Your task to perform on an android device: Search for 35 best books of all time Image 0: 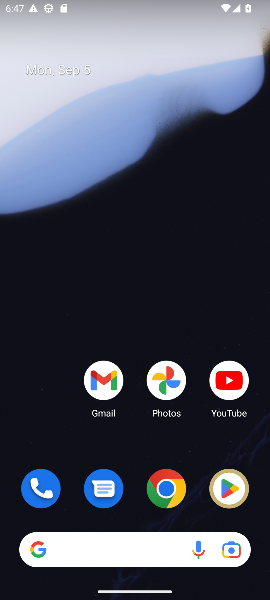
Step 0: click (171, 498)
Your task to perform on an android device: Search for 35 best books of all time Image 1: 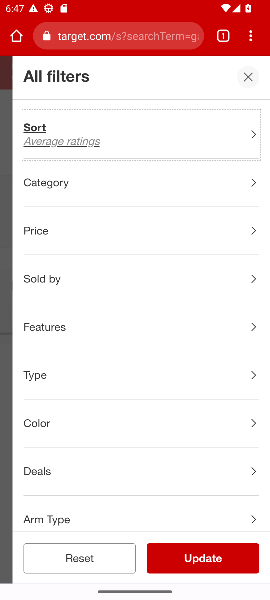
Step 1: click (151, 27)
Your task to perform on an android device: Search for 35 best books of all time Image 2: 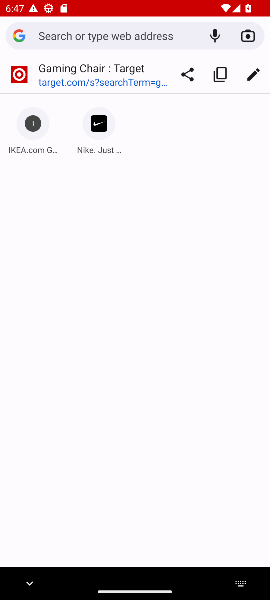
Step 2: type "35 best books of all time"
Your task to perform on an android device: Search for 35 best books of all time Image 3: 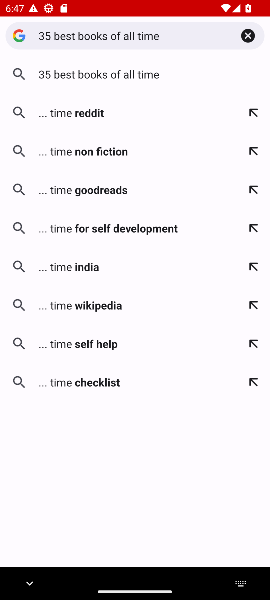
Step 3: press enter
Your task to perform on an android device: Search for 35 best books of all time Image 4: 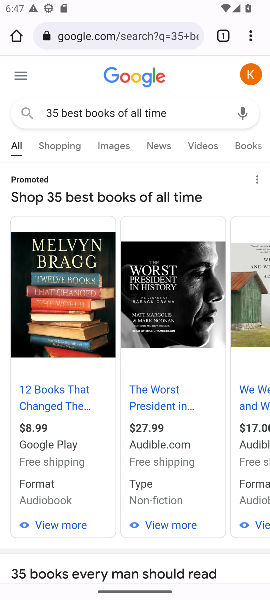
Step 4: click (178, 550)
Your task to perform on an android device: Search for 35 best books of all time Image 5: 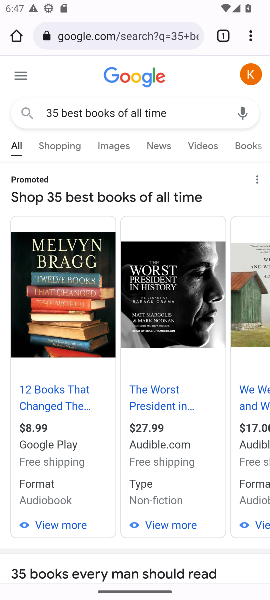
Step 5: click (157, 548)
Your task to perform on an android device: Search for 35 best books of all time Image 6: 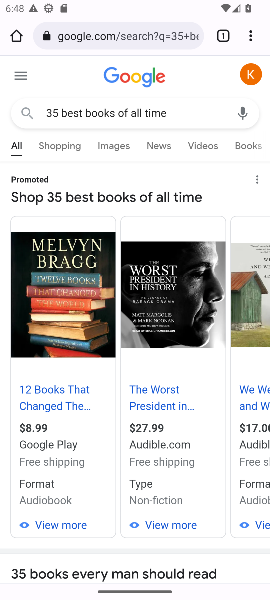
Step 6: task complete